Your task to perform on an android device: find snoozed emails in the gmail app Image 0: 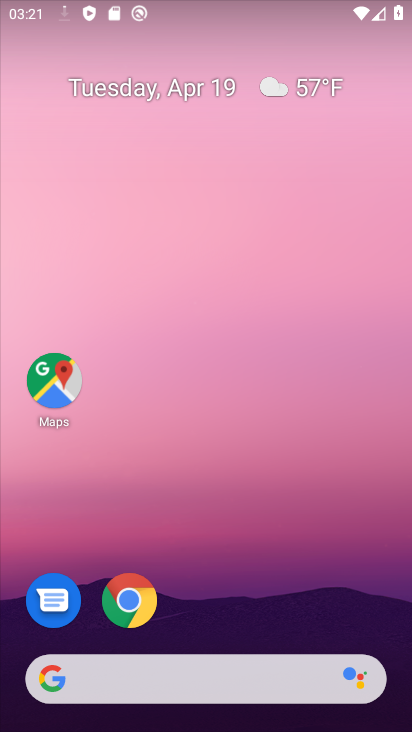
Step 0: drag from (331, 542) to (258, 159)
Your task to perform on an android device: find snoozed emails in the gmail app Image 1: 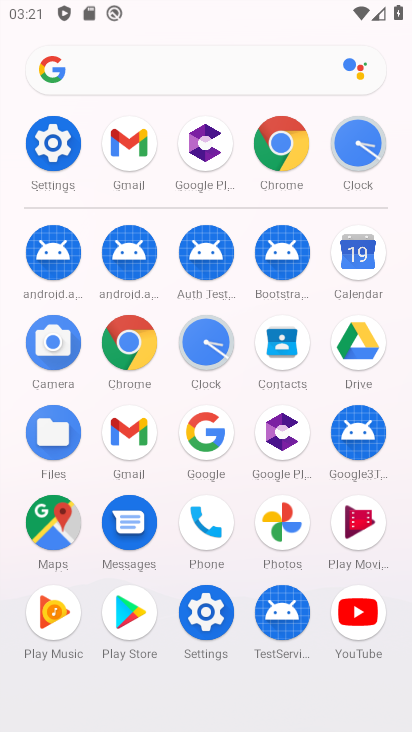
Step 1: click (127, 436)
Your task to perform on an android device: find snoozed emails in the gmail app Image 2: 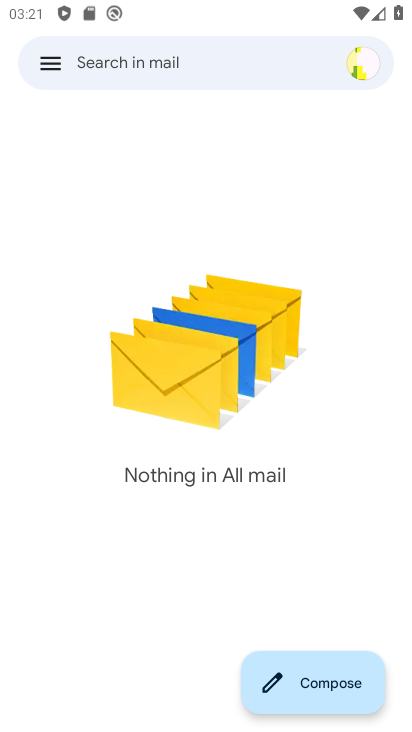
Step 2: click (51, 70)
Your task to perform on an android device: find snoozed emails in the gmail app Image 3: 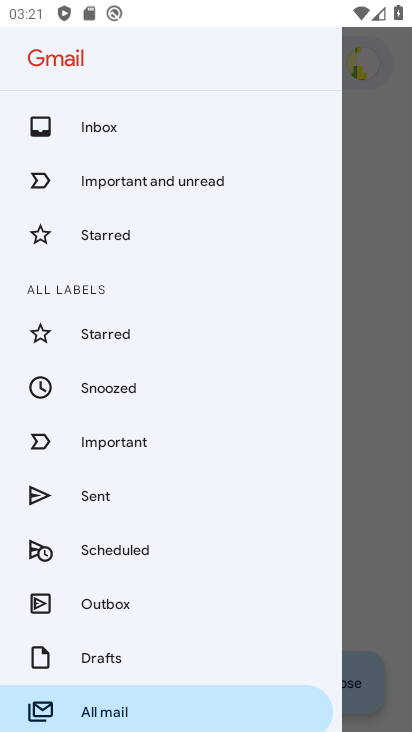
Step 3: click (183, 379)
Your task to perform on an android device: find snoozed emails in the gmail app Image 4: 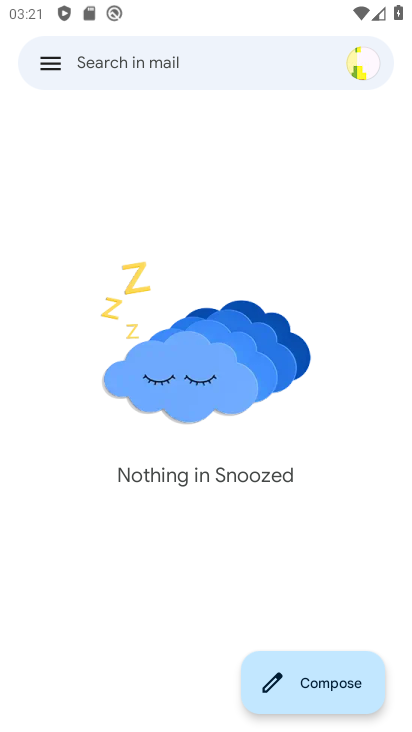
Step 4: task complete